Your task to perform on an android device: check google app version Image 0: 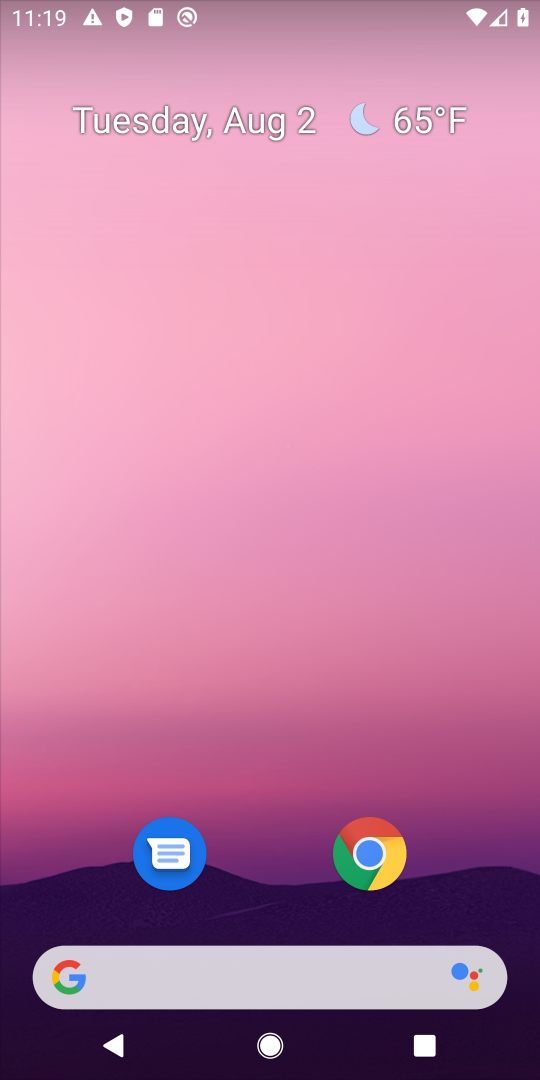
Step 0: press home button
Your task to perform on an android device: check google app version Image 1: 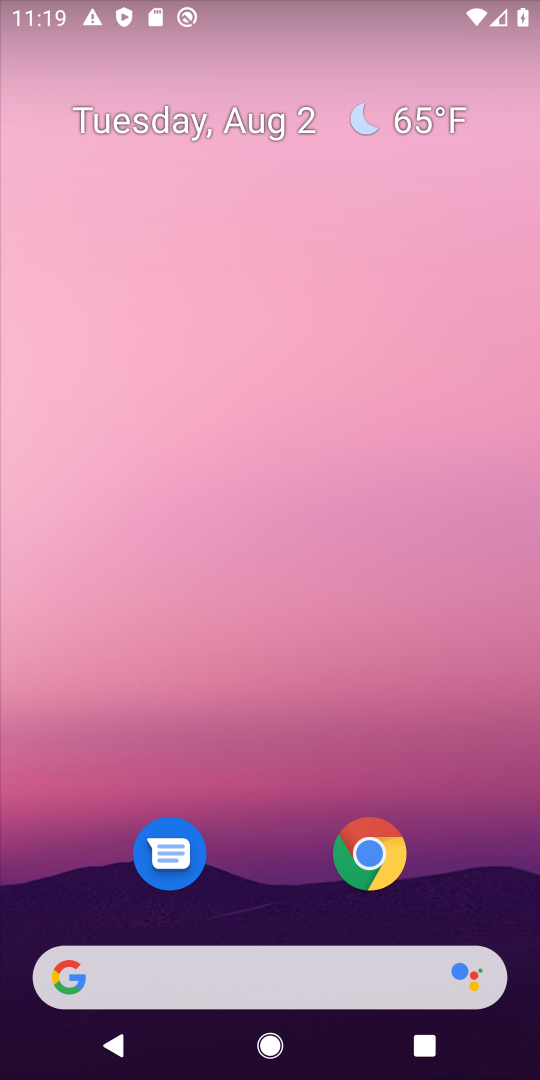
Step 1: drag from (268, 898) to (195, 128)
Your task to perform on an android device: check google app version Image 2: 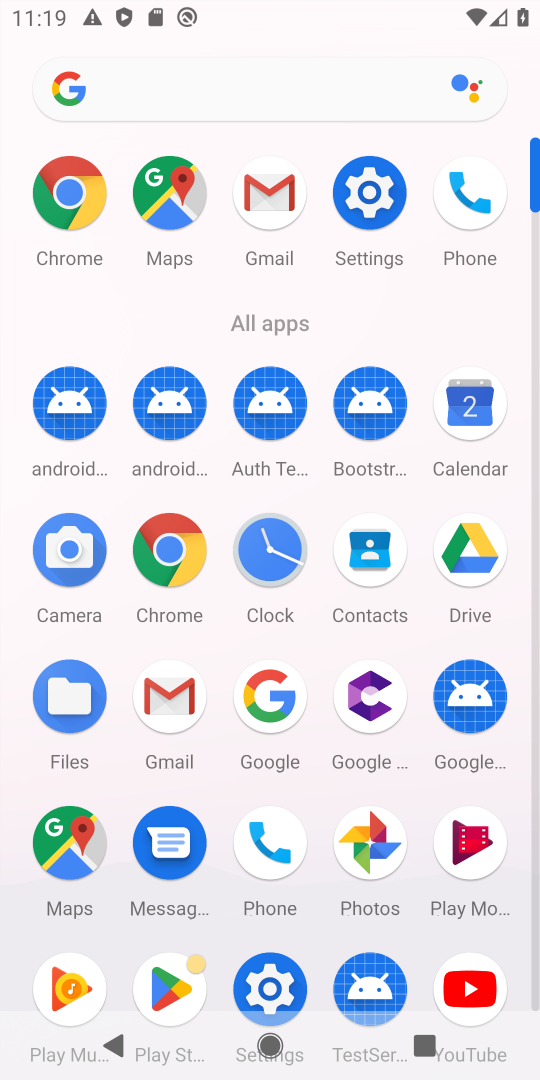
Step 2: click (267, 694)
Your task to perform on an android device: check google app version Image 3: 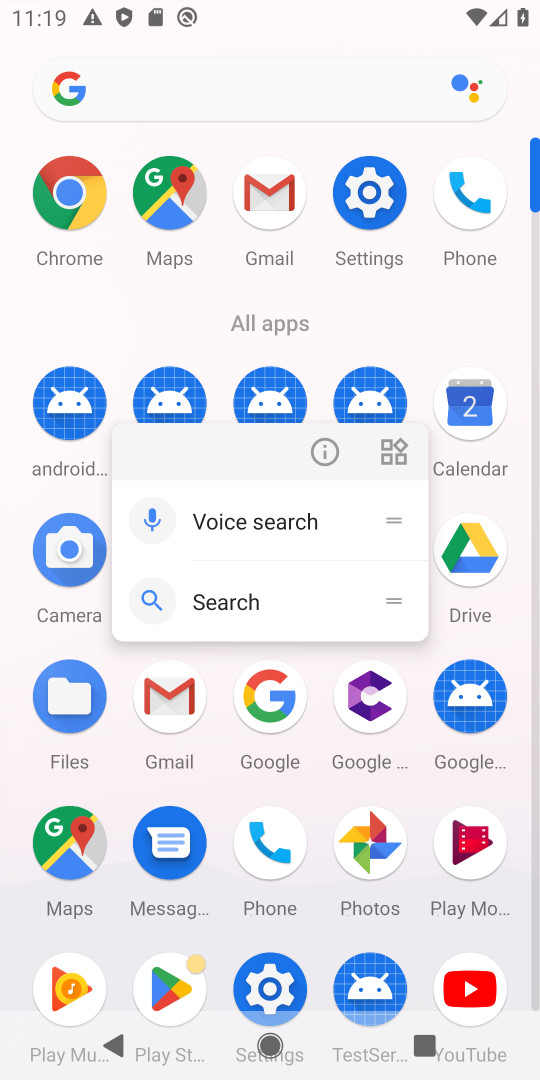
Step 3: click (313, 451)
Your task to perform on an android device: check google app version Image 4: 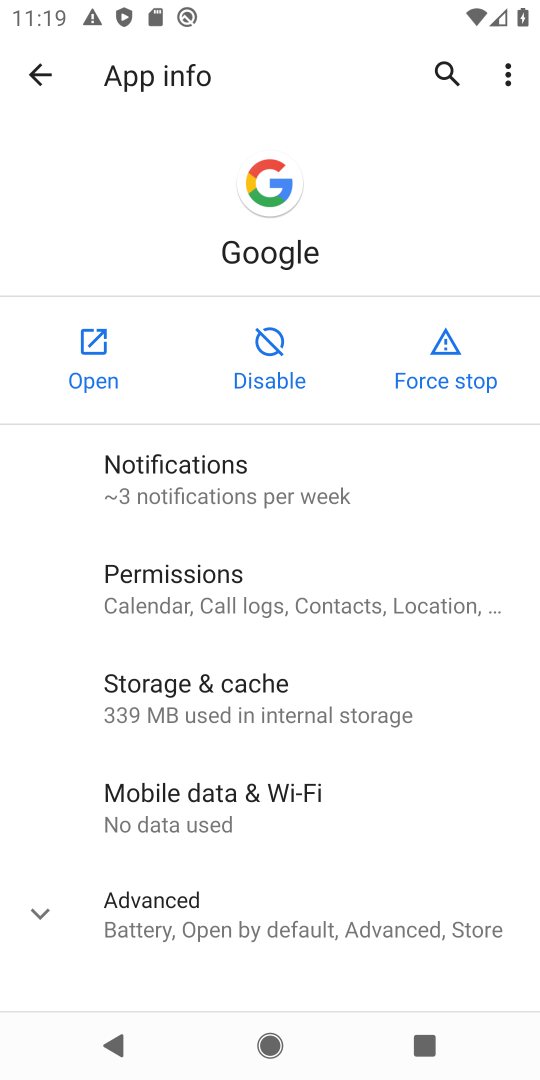
Step 4: click (186, 923)
Your task to perform on an android device: check google app version Image 5: 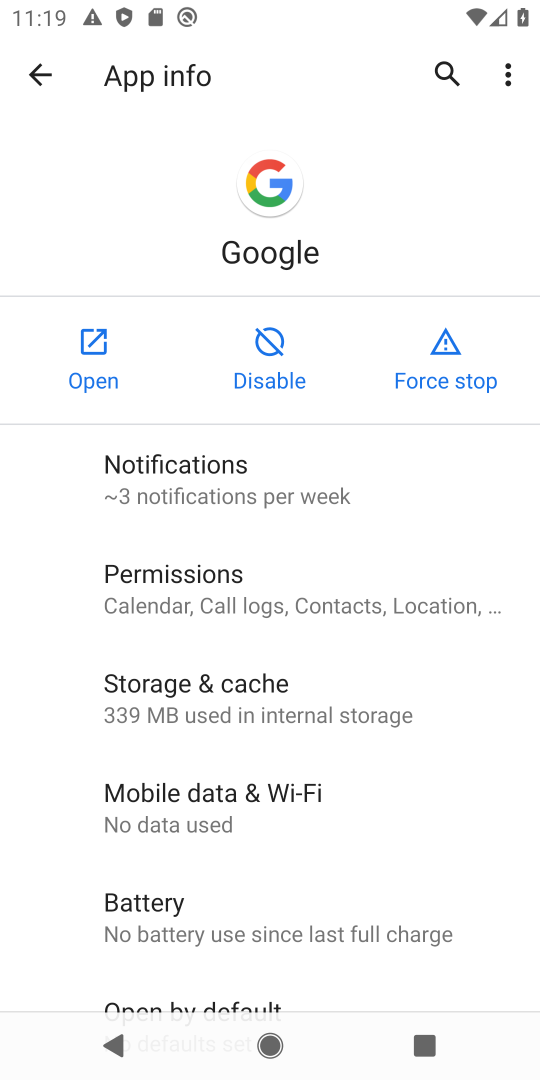
Step 5: task complete